Your task to perform on an android device: Clear all items from cart on newegg.com. Search for alienware area 51 on newegg.com, select the first entry, and add it to the cart. Image 0: 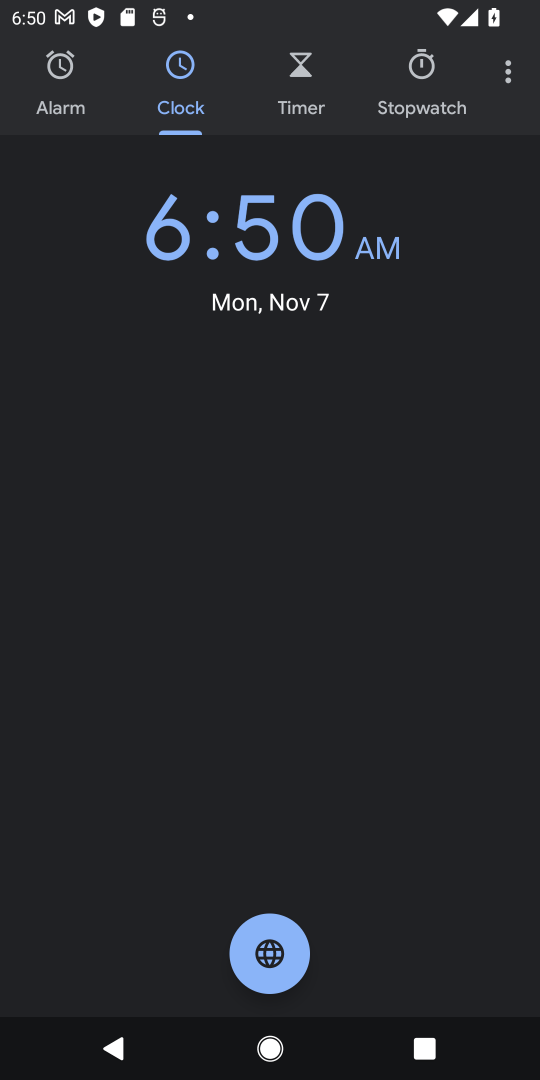
Step 0: press home button
Your task to perform on an android device: Clear all items from cart on newegg.com. Search for alienware area 51 on newegg.com, select the first entry, and add it to the cart. Image 1: 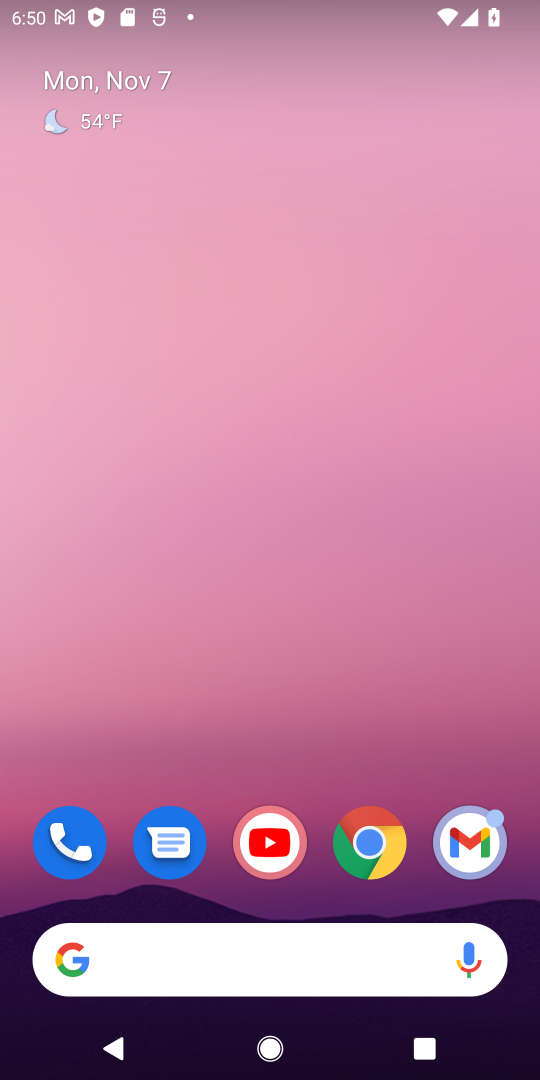
Step 1: click (362, 840)
Your task to perform on an android device: Clear all items from cart on newegg.com. Search for alienware area 51 on newegg.com, select the first entry, and add it to the cart. Image 2: 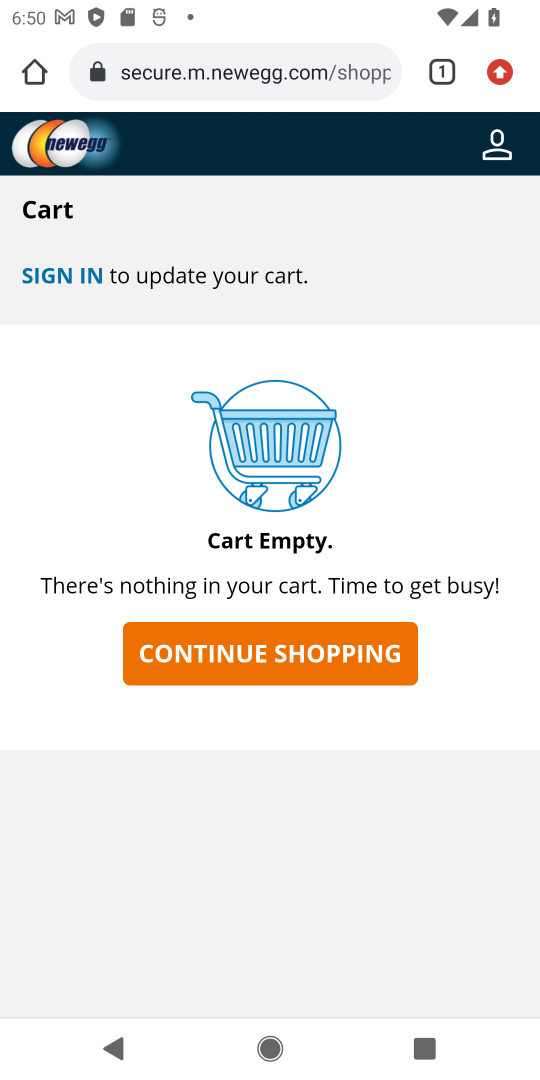
Step 2: click (293, 660)
Your task to perform on an android device: Clear all items from cart on newegg.com. Search for alienware area 51 on newegg.com, select the first entry, and add it to the cart. Image 3: 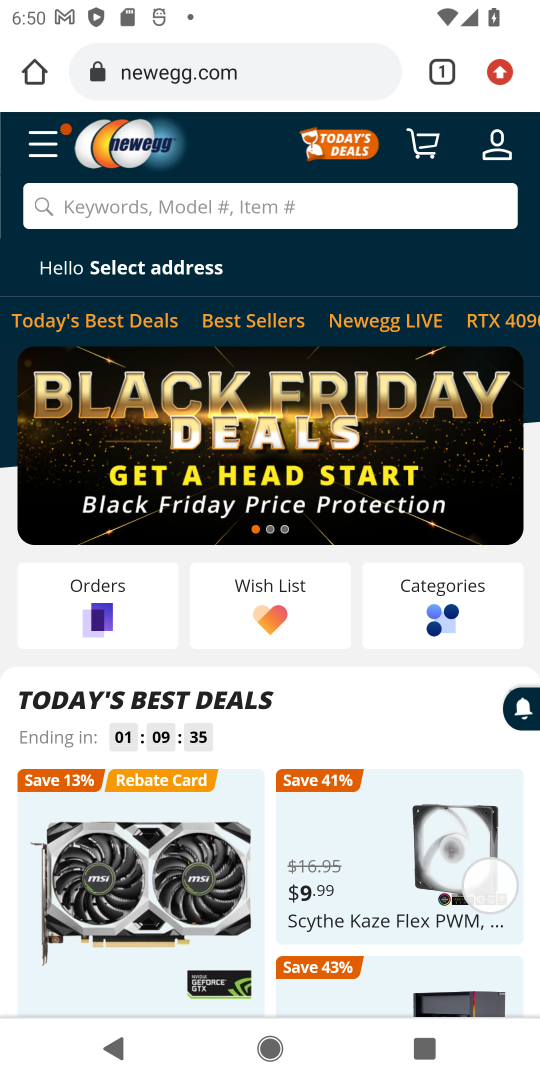
Step 3: click (284, 203)
Your task to perform on an android device: Clear all items from cart on newegg.com. Search for alienware area 51 on newegg.com, select the first entry, and add it to the cart. Image 4: 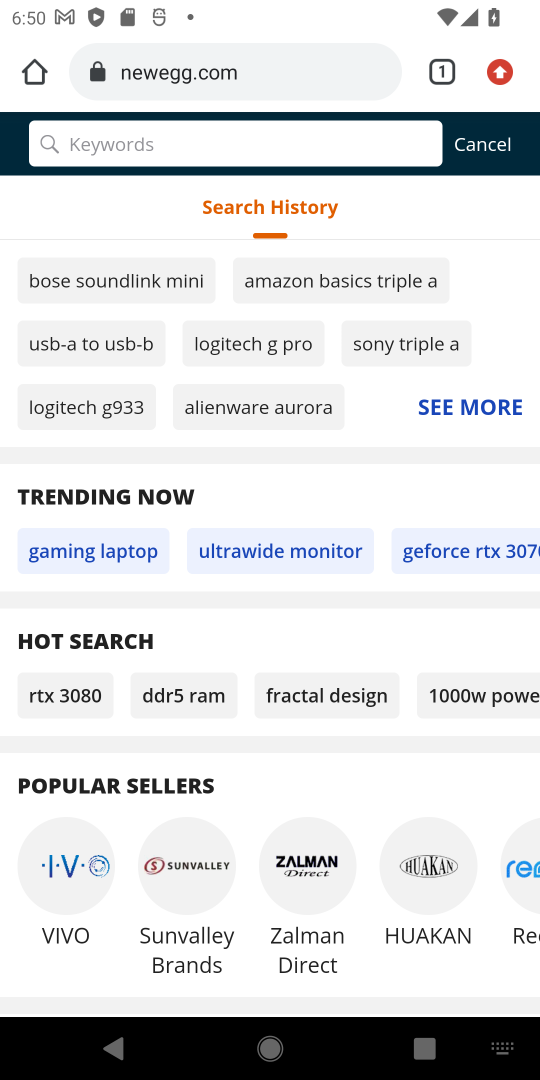
Step 4: type "alienware area 51"
Your task to perform on an android device: Clear all items from cart on newegg.com. Search for alienware area 51 on newegg.com, select the first entry, and add it to the cart. Image 5: 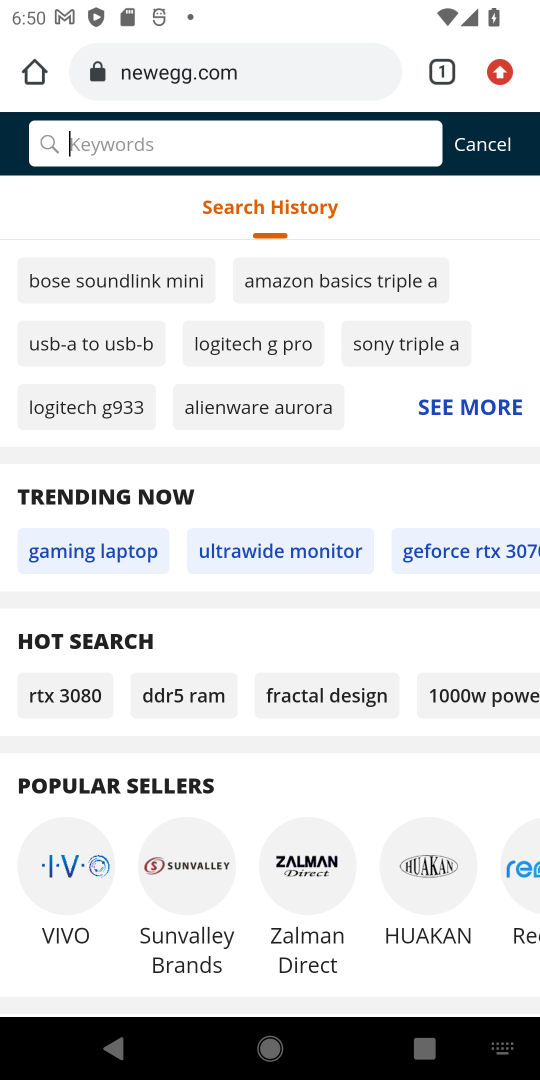
Step 5: press enter
Your task to perform on an android device: Clear all items from cart on newegg.com. Search for alienware area 51 on newegg.com, select the first entry, and add it to the cart. Image 6: 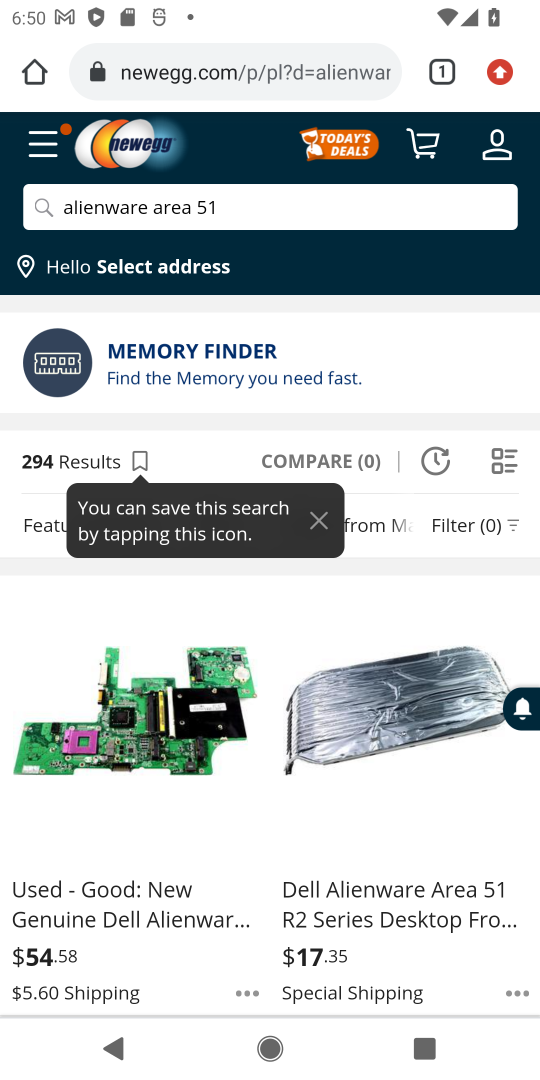
Step 6: click (89, 921)
Your task to perform on an android device: Clear all items from cart on newegg.com. Search for alienware area 51 on newegg.com, select the first entry, and add it to the cart. Image 7: 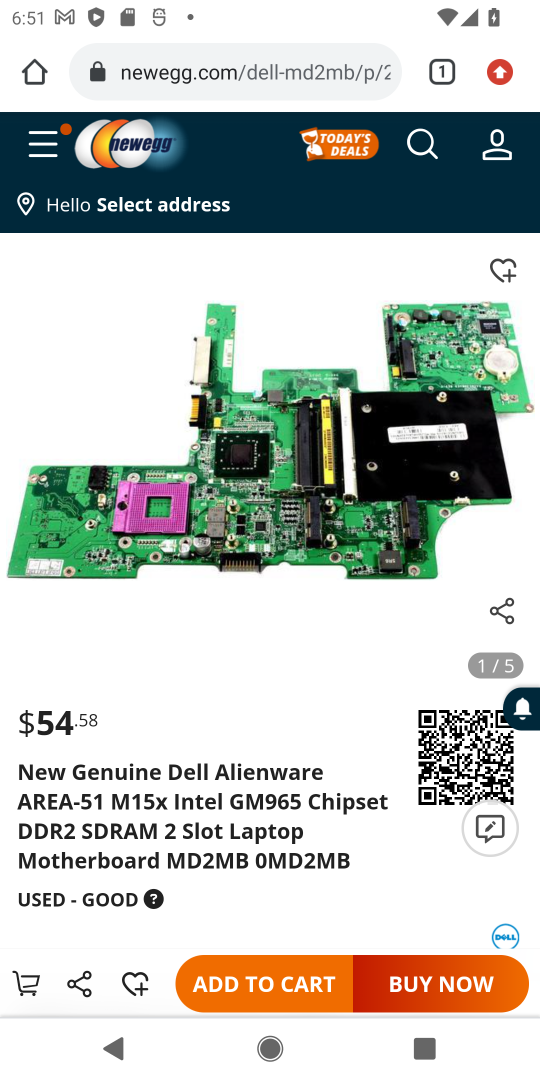
Step 7: click (240, 979)
Your task to perform on an android device: Clear all items from cart on newegg.com. Search for alienware area 51 on newegg.com, select the first entry, and add it to the cart. Image 8: 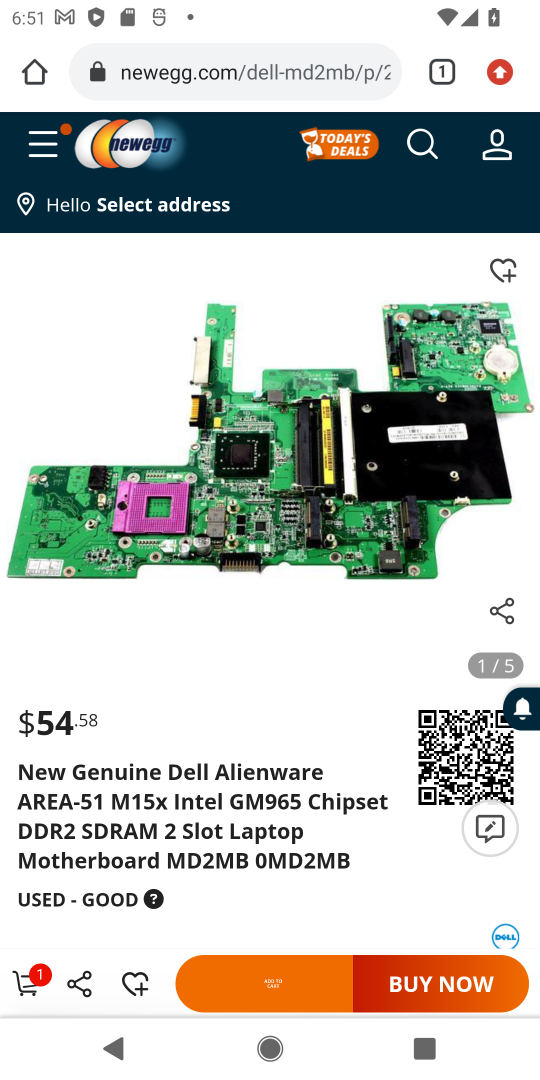
Step 8: click (41, 983)
Your task to perform on an android device: Clear all items from cart on newegg.com. Search for alienware area 51 on newegg.com, select the first entry, and add it to the cart. Image 9: 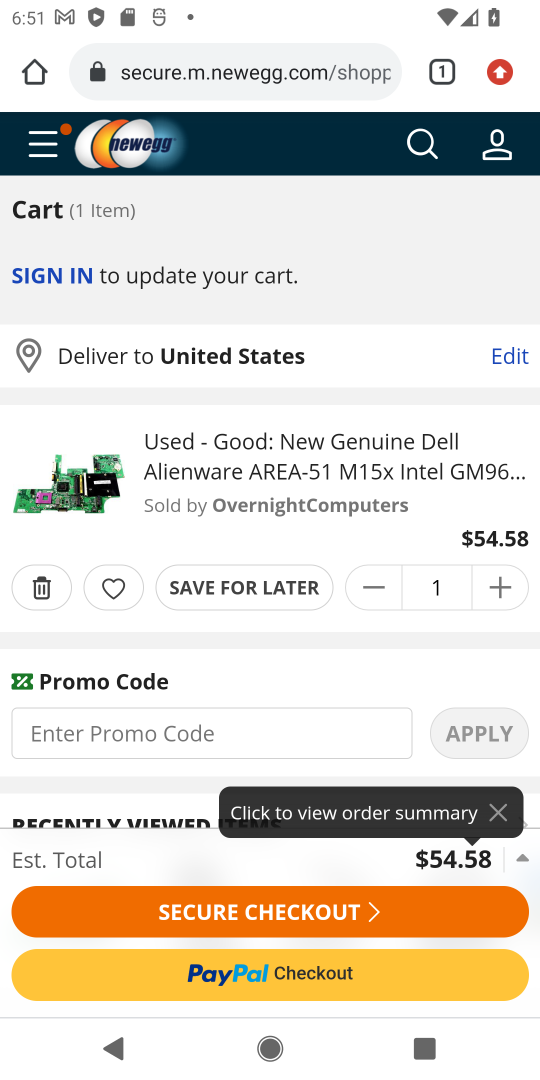
Step 9: task complete